Your task to perform on an android device: turn notification dots off Image 0: 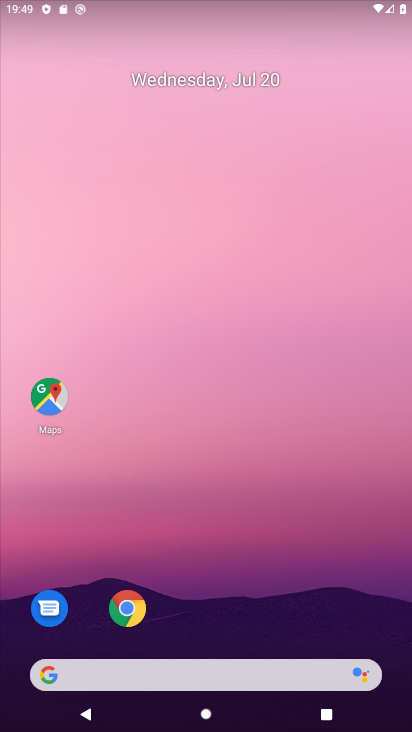
Step 0: drag from (294, 552) to (197, 114)
Your task to perform on an android device: turn notification dots off Image 1: 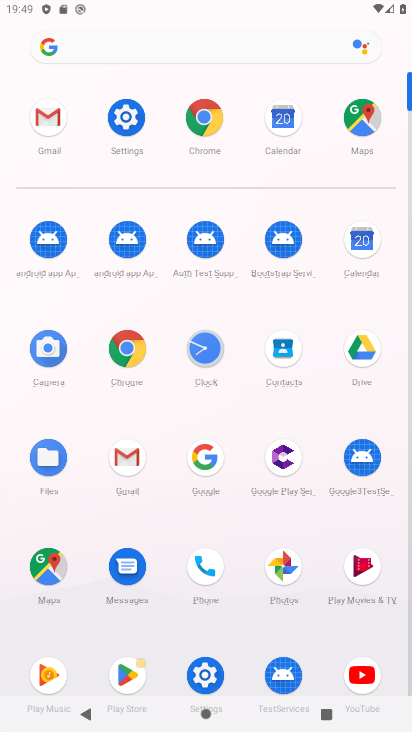
Step 1: click (137, 114)
Your task to perform on an android device: turn notification dots off Image 2: 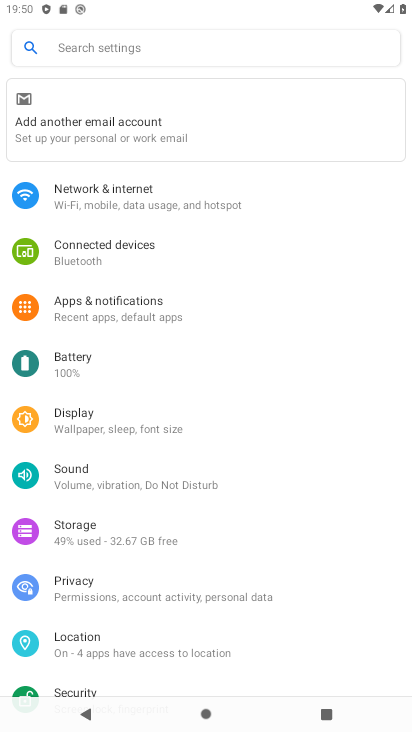
Step 2: click (112, 312)
Your task to perform on an android device: turn notification dots off Image 3: 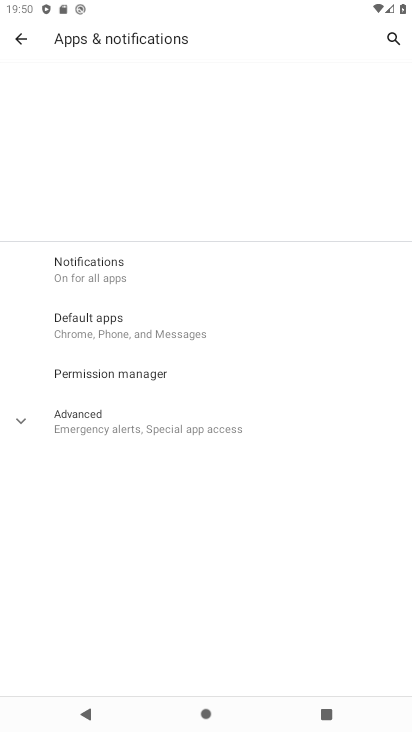
Step 3: drag from (112, 312) to (127, 253)
Your task to perform on an android device: turn notification dots off Image 4: 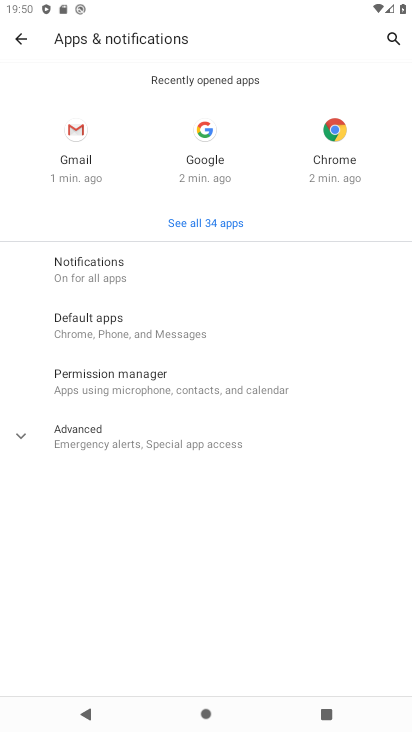
Step 4: click (121, 257)
Your task to perform on an android device: turn notification dots off Image 5: 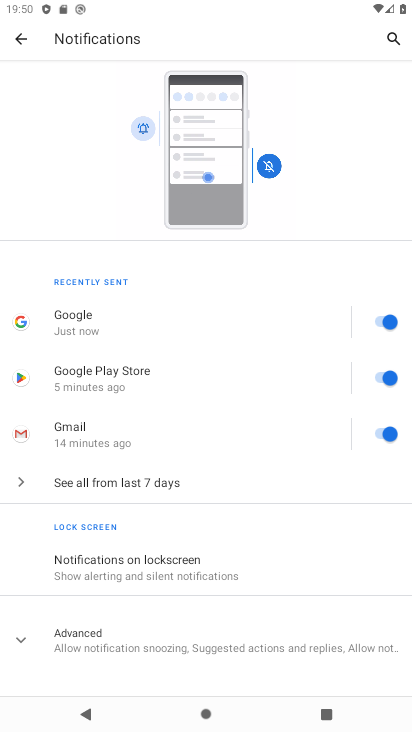
Step 5: drag from (209, 592) to (184, 107)
Your task to perform on an android device: turn notification dots off Image 6: 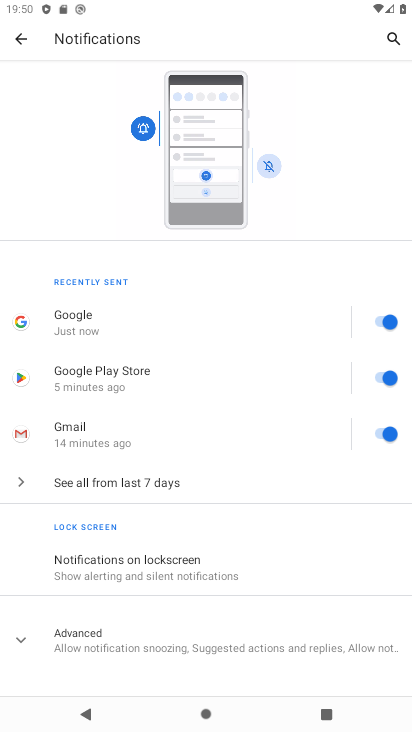
Step 6: click (139, 620)
Your task to perform on an android device: turn notification dots off Image 7: 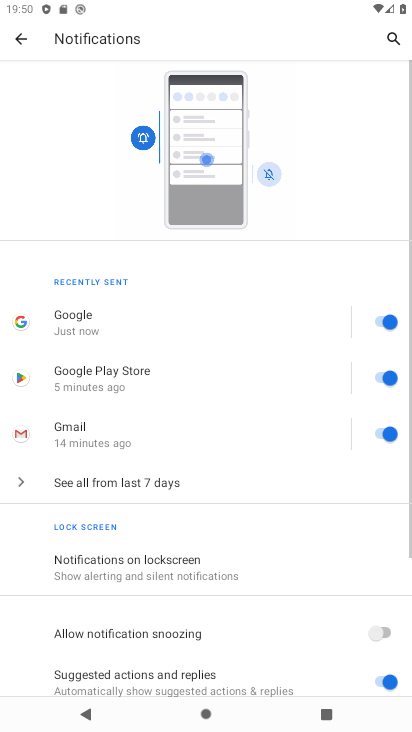
Step 7: drag from (179, 563) to (218, 191)
Your task to perform on an android device: turn notification dots off Image 8: 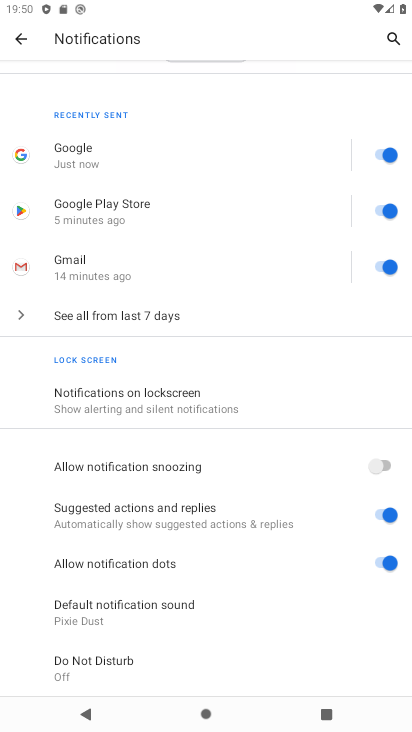
Step 8: click (372, 557)
Your task to perform on an android device: turn notification dots off Image 9: 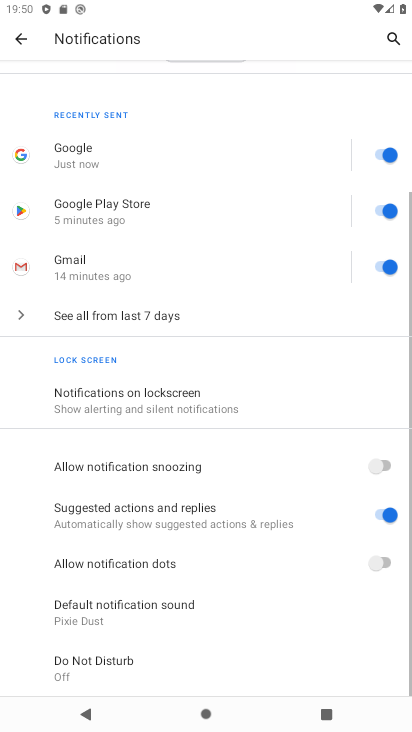
Step 9: task complete